Your task to perform on an android device: Do I have any events tomorrow? Image 0: 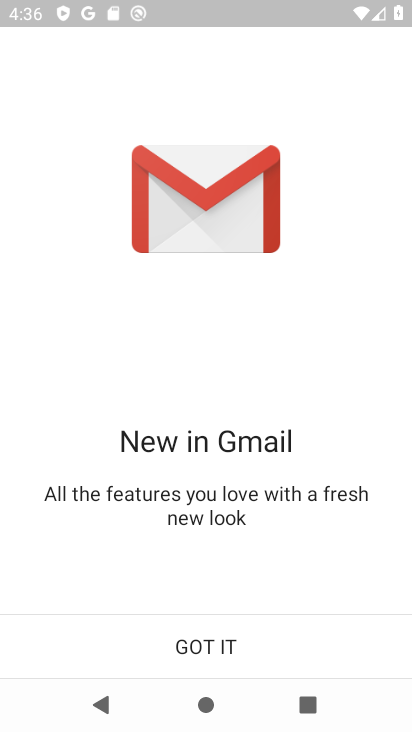
Step 0: press home button
Your task to perform on an android device: Do I have any events tomorrow? Image 1: 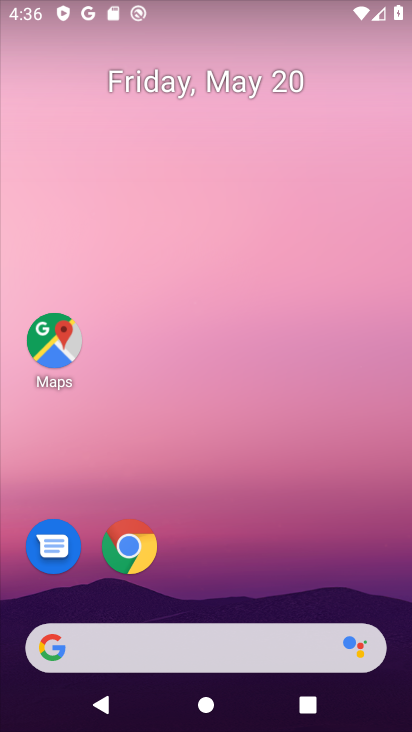
Step 1: drag from (212, 227) to (200, 131)
Your task to perform on an android device: Do I have any events tomorrow? Image 2: 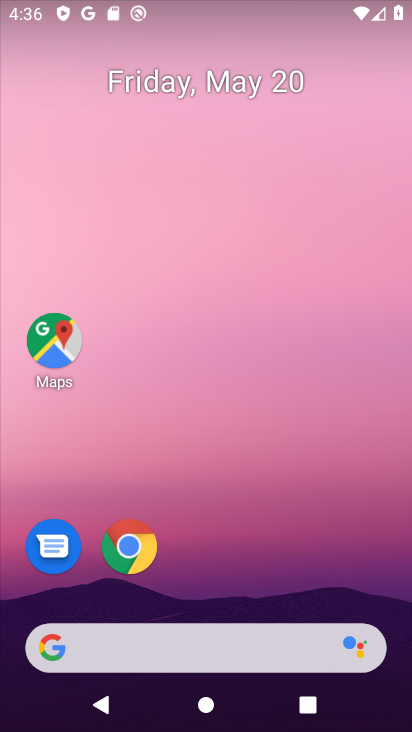
Step 2: drag from (244, 582) to (167, 88)
Your task to perform on an android device: Do I have any events tomorrow? Image 3: 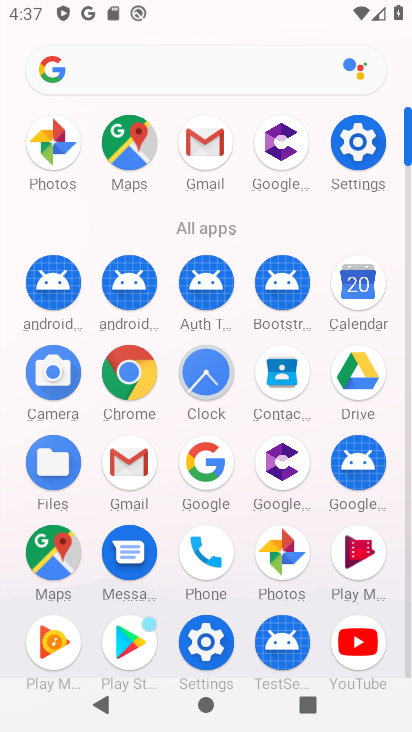
Step 3: click (361, 286)
Your task to perform on an android device: Do I have any events tomorrow? Image 4: 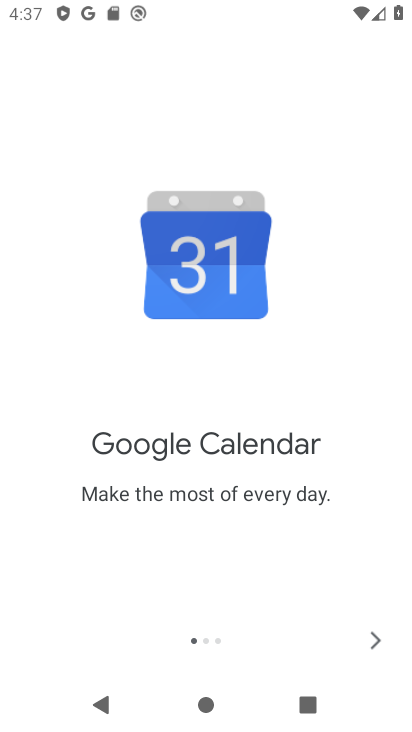
Step 4: click (371, 634)
Your task to perform on an android device: Do I have any events tomorrow? Image 5: 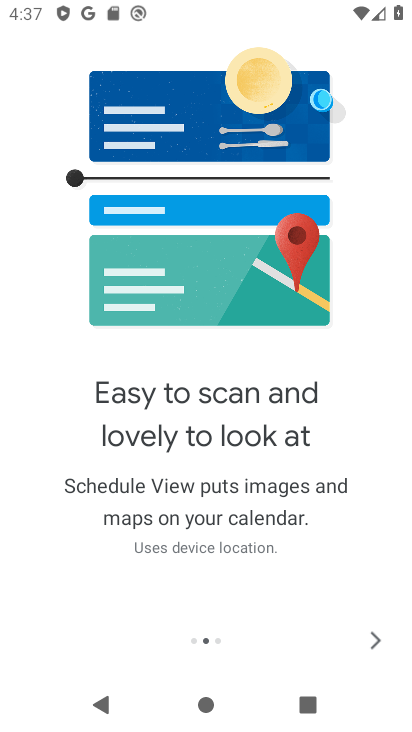
Step 5: click (371, 634)
Your task to perform on an android device: Do I have any events tomorrow? Image 6: 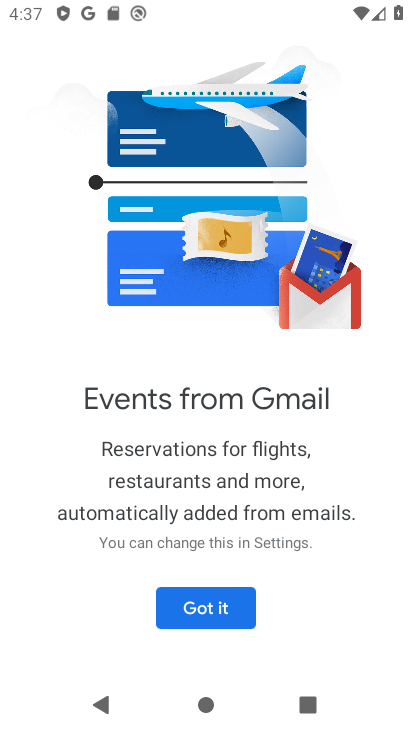
Step 6: click (214, 609)
Your task to perform on an android device: Do I have any events tomorrow? Image 7: 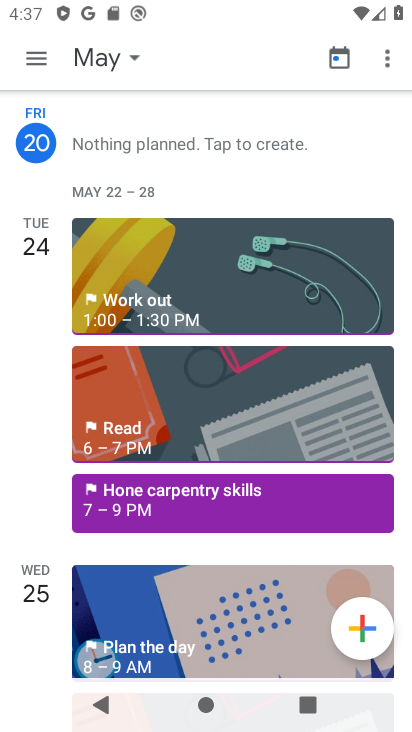
Step 7: click (137, 55)
Your task to perform on an android device: Do I have any events tomorrow? Image 8: 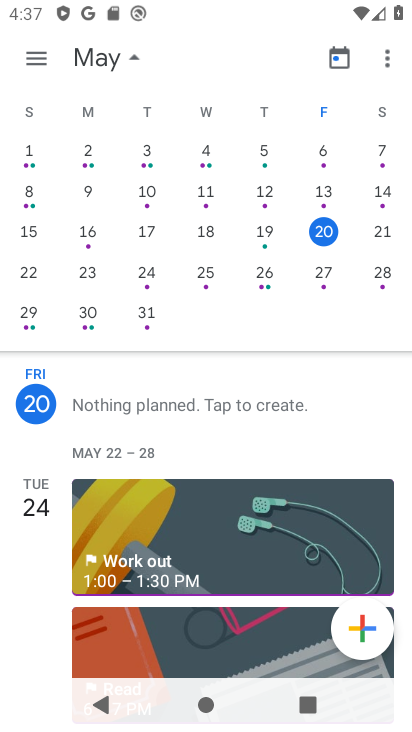
Step 8: click (394, 231)
Your task to perform on an android device: Do I have any events tomorrow? Image 9: 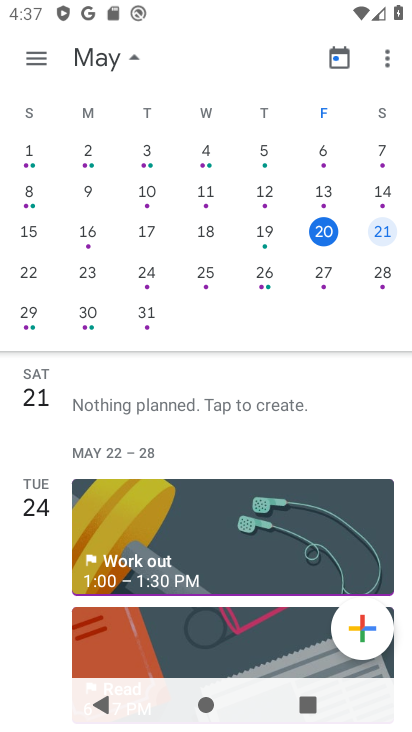
Step 9: click (106, 390)
Your task to perform on an android device: Do I have any events tomorrow? Image 10: 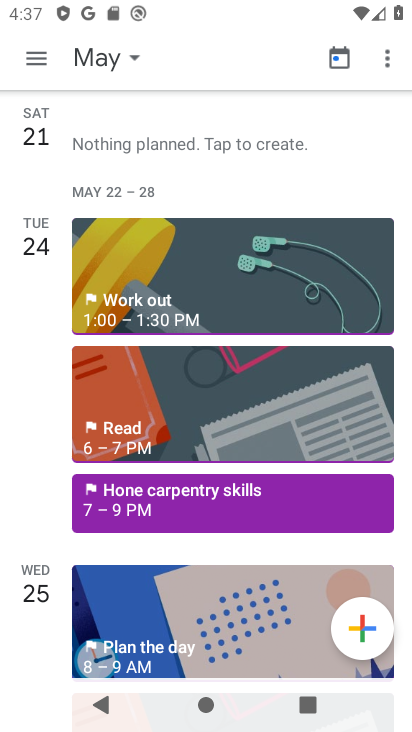
Step 10: task complete